Your task to perform on an android device: turn notification dots on Image 0: 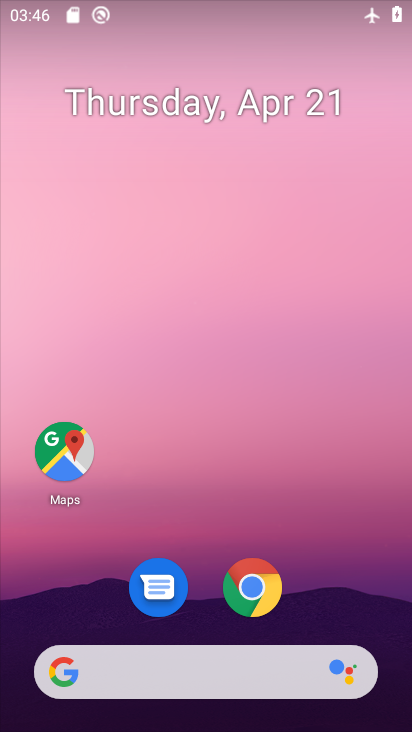
Step 0: drag from (358, 598) to (356, 171)
Your task to perform on an android device: turn notification dots on Image 1: 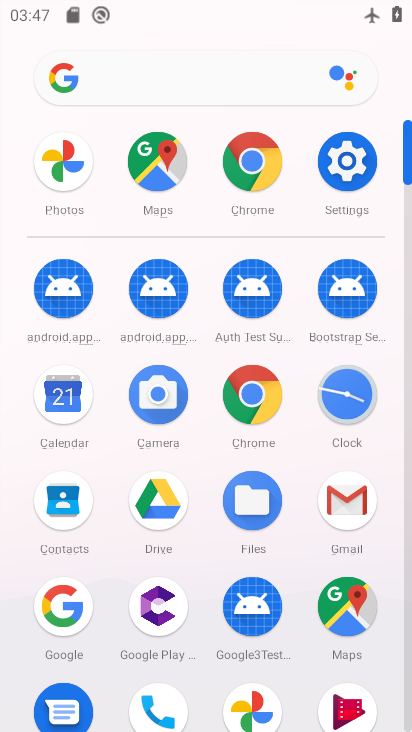
Step 1: click (365, 175)
Your task to perform on an android device: turn notification dots on Image 2: 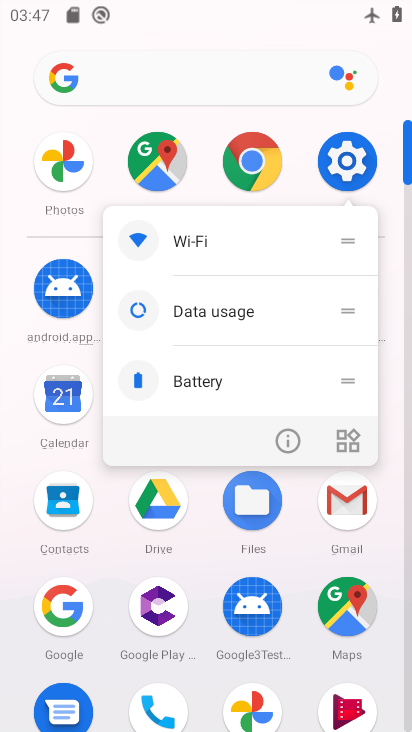
Step 2: click (365, 175)
Your task to perform on an android device: turn notification dots on Image 3: 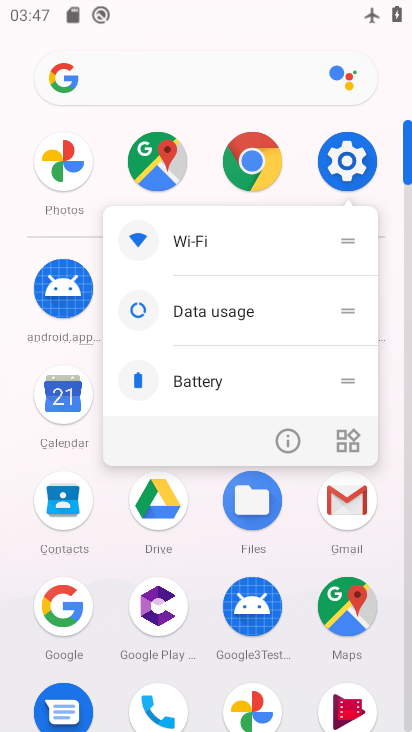
Step 3: click (365, 175)
Your task to perform on an android device: turn notification dots on Image 4: 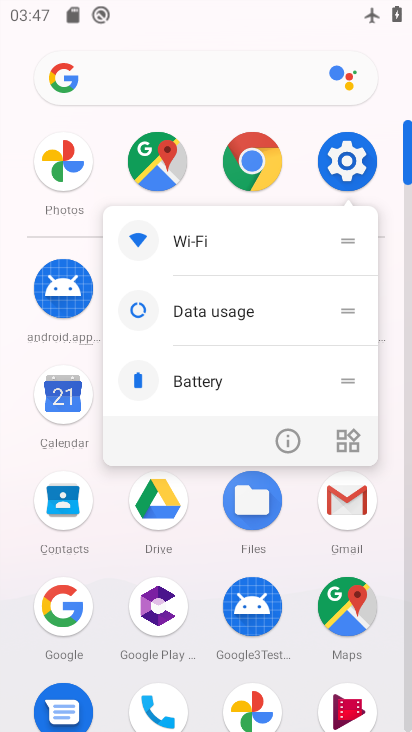
Step 4: click (365, 175)
Your task to perform on an android device: turn notification dots on Image 5: 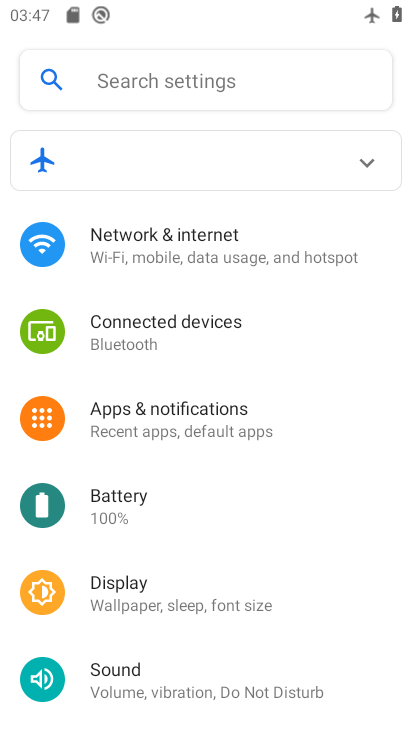
Step 5: drag from (367, 544) to (372, 402)
Your task to perform on an android device: turn notification dots on Image 6: 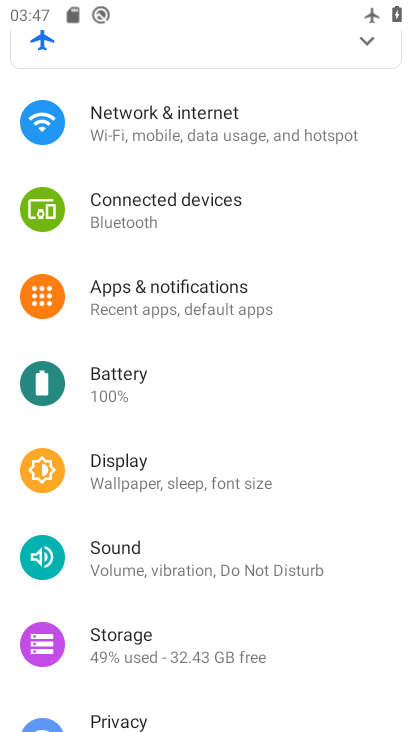
Step 6: drag from (351, 598) to (359, 452)
Your task to perform on an android device: turn notification dots on Image 7: 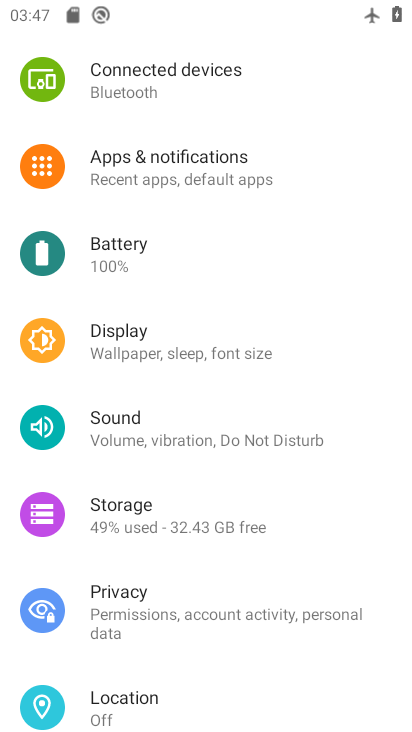
Step 7: drag from (361, 564) to (366, 422)
Your task to perform on an android device: turn notification dots on Image 8: 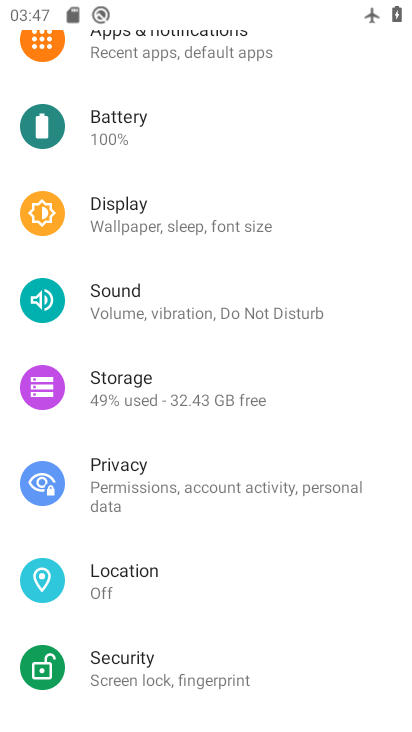
Step 8: drag from (362, 599) to (372, 442)
Your task to perform on an android device: turn notification dots on Image 9: 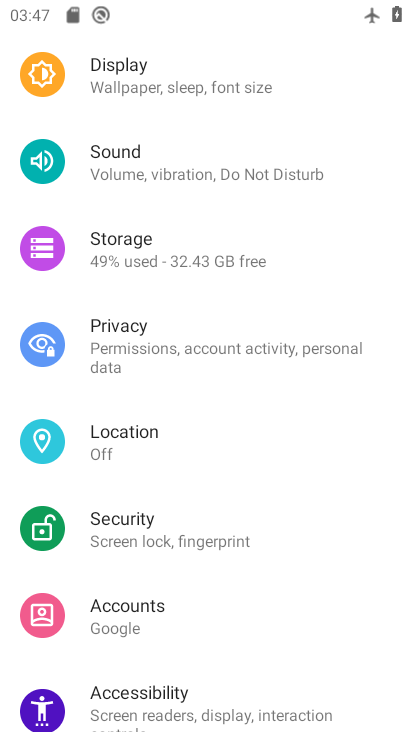
Step 9: drag from (341, 600) to (361, 448)
Your task to perform on an android device: turn notification dots on Image 10: 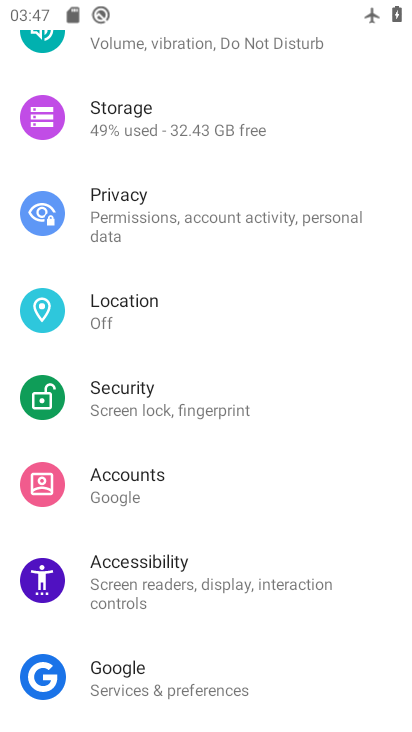
Step 10: drag from (373, 632) to (377, 477)
Your task to perform on an android device: turn notification dots on Image 11: 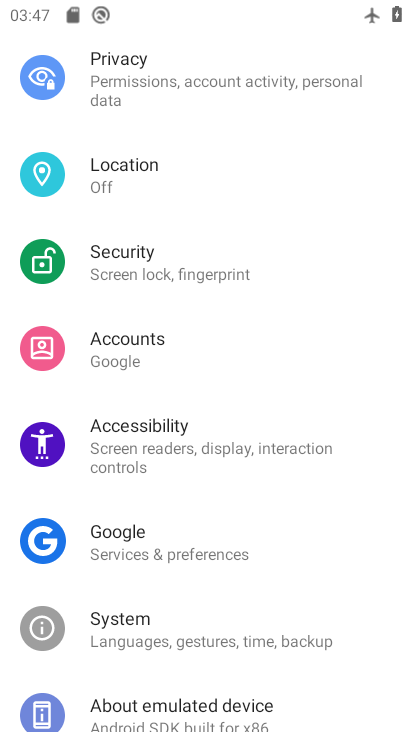
Step 11: drag from (362, 653) to (368, 453)
Your task to perform on an android device: turn notification dots on Image 12: 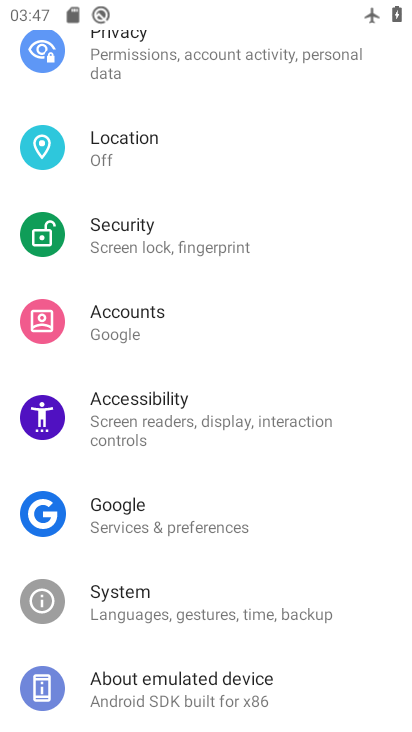
Step 12: drag from (368, 348) to (371, 493)
Your task to perform on an android device: turn notification dots on Image 13: 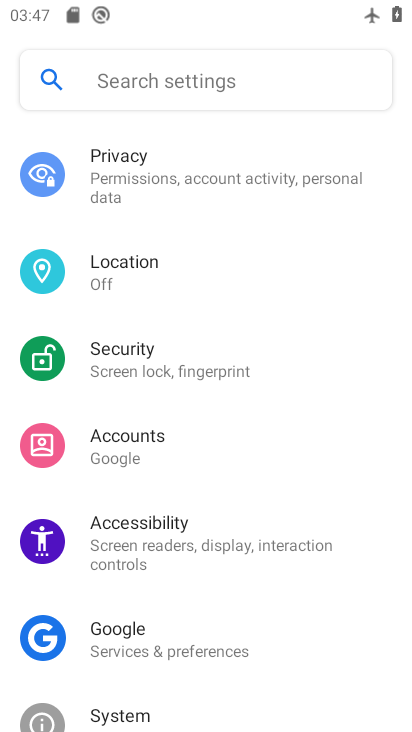
Step 13: drag from (366, 315) to (367, 486)
Your task to perform on an android device: turn notification dots on Image 14: 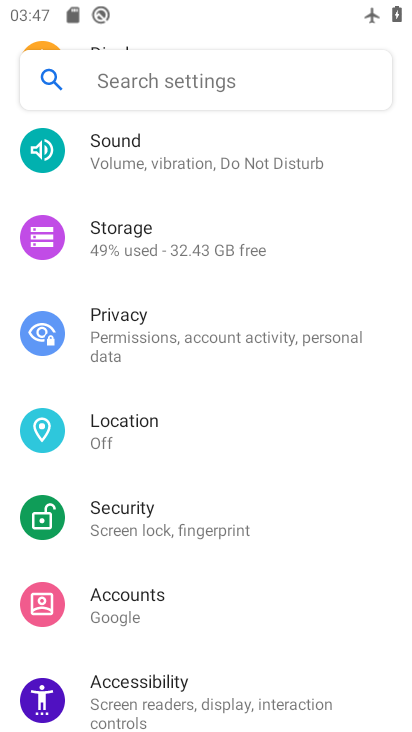
Step 14: drag from (377, 283) to (377, 441)
Your task to perform on an android device: turn notification dots on Image 15: 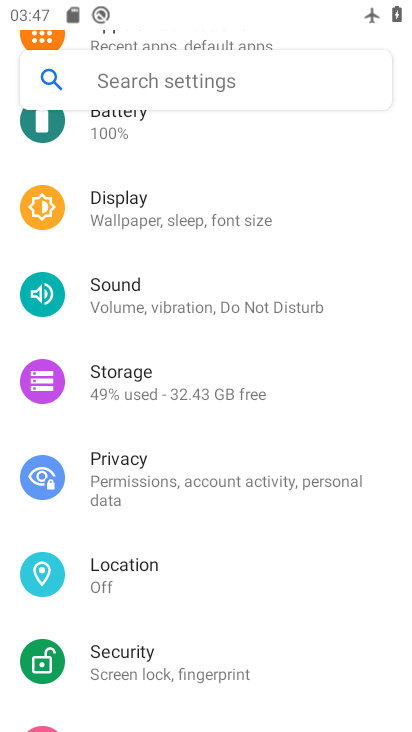
Step 15: drag from (371, 292) to (368, 448)
Your task to perform on an android device: turn notification dots on Image 16: 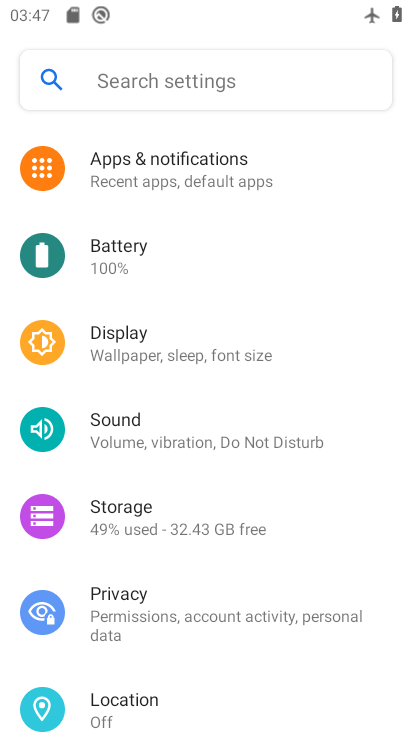
Step 16: drag from (362, 294) to (363, 494)
Your task to perform on an android device: turn notification dots on Image 17: 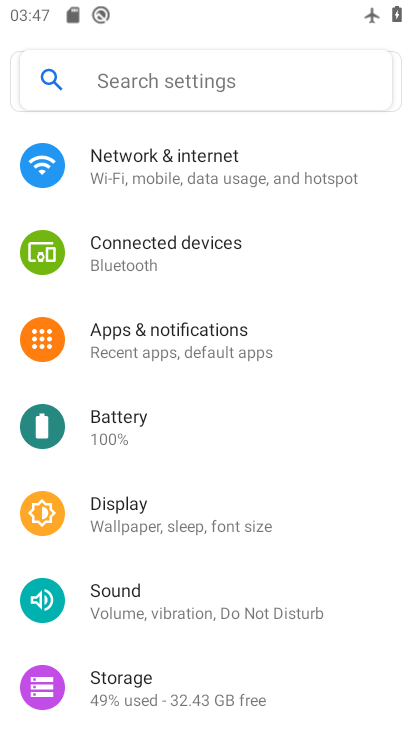
Step 17: drag from (356, 286) to (358, 476)
Your task to perform on an android device: turn notification dots on Image 18: 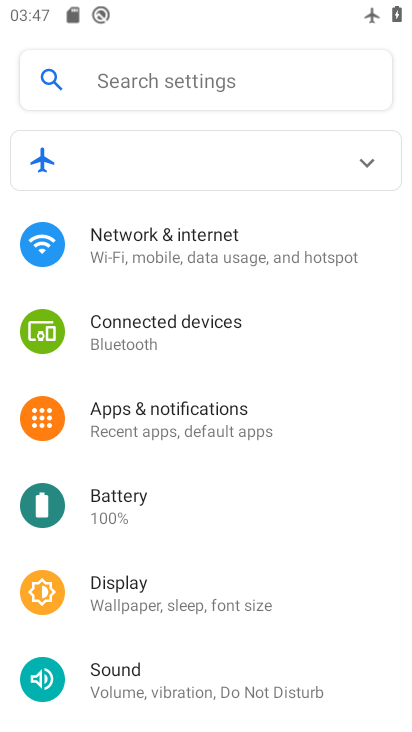
Step 18: click (227, 434)
Your task to perform on an android device: turn notification dots on Image 19: 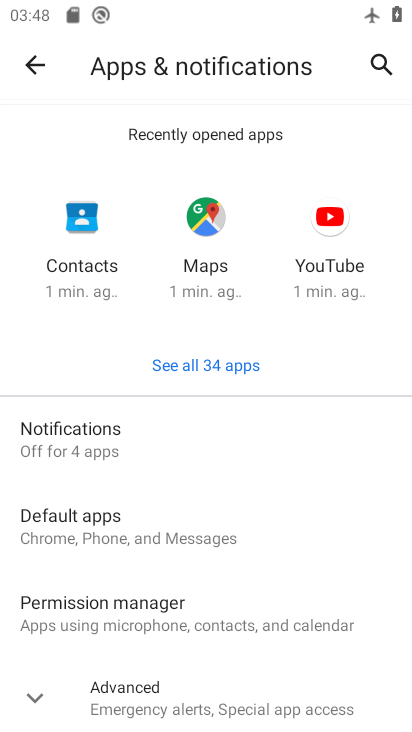
Step 19: click (92, 445)
Your task to perform on an android device: turn notification dots on Image 20: 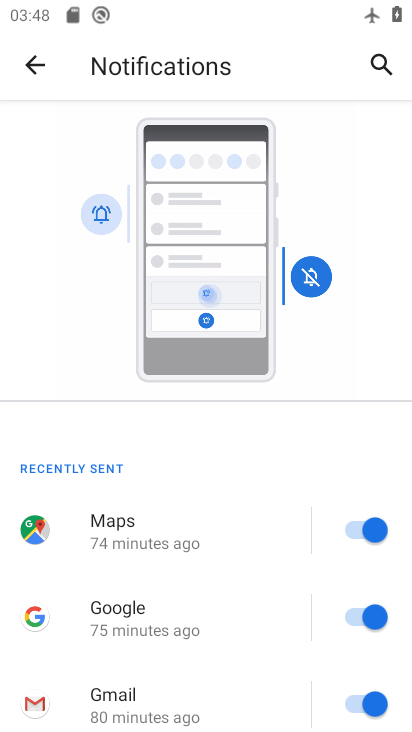
Step 20: drag from (265, 610) to (272, 441)
Your task to perform on an android device: turn notification dots on Image 21: 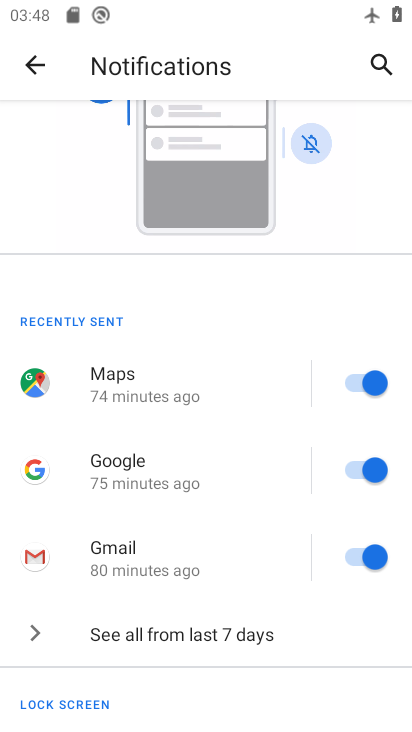
Step 21: drag from (272, 598) to (276, 415)
Your task to perform on an android device: turn notification dots on Image 22: 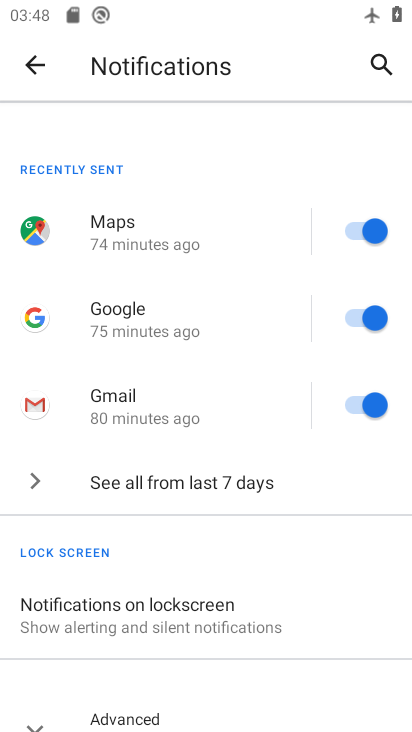
Step 22: drag from (285, 607) to (286, 441)
Your task to perform on an android device: turn notification dots on Image 23: 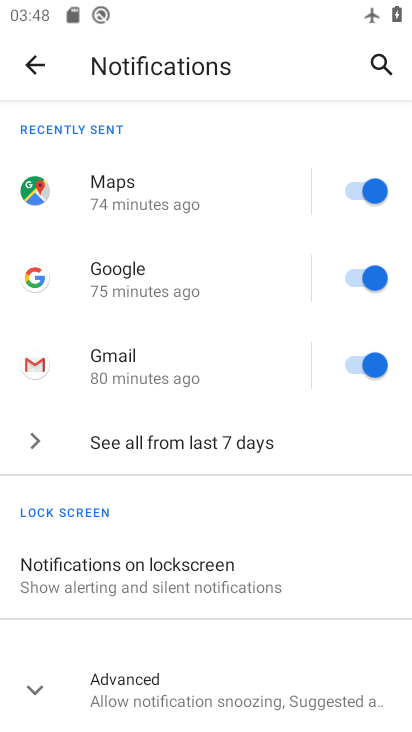
Step 23: click (268, 693)
Your task to perform on an android device: turn notification dots on Image 24: 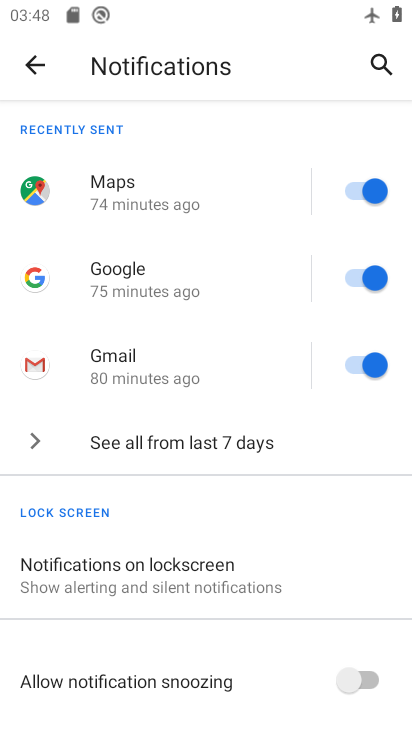
Step 24: task complete